Your task to perform on an android device: Go to Reddit.com Image 0: 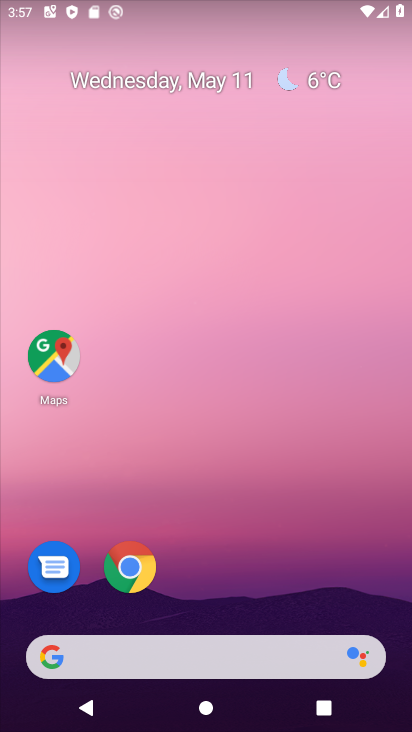
Step 0: drag from (256, 543) to (298, 135)
Your task to perform on an android device: Go to Reddit.com Image 1: 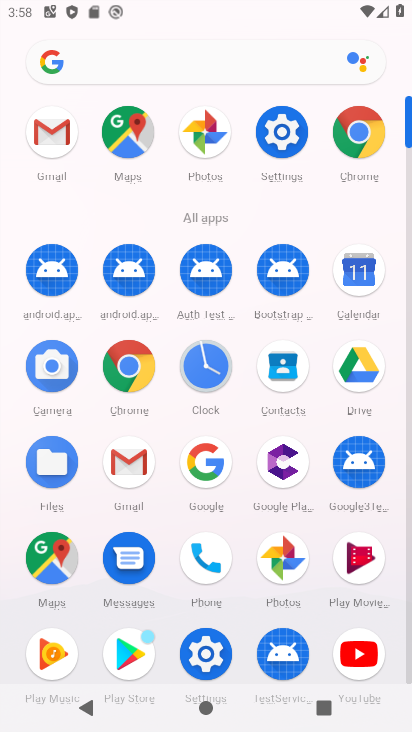
Step 1: click (348, 128)
Your task to perform on an android device: Go to Reddit.com Image 2: 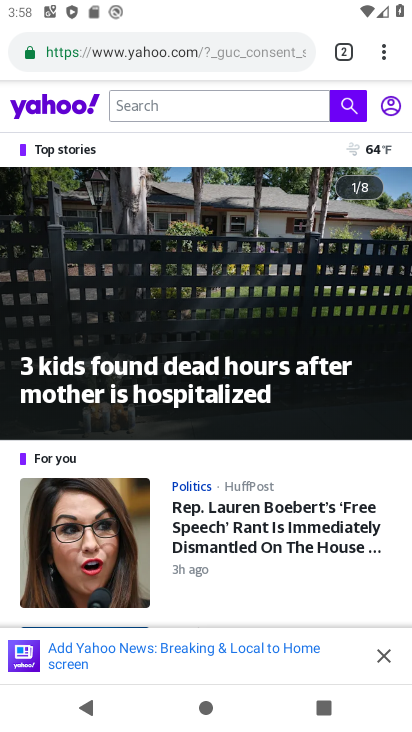
Step 2: click (370, 48)
Your task to perform on an android device: Go to Reddit.com Image 3: 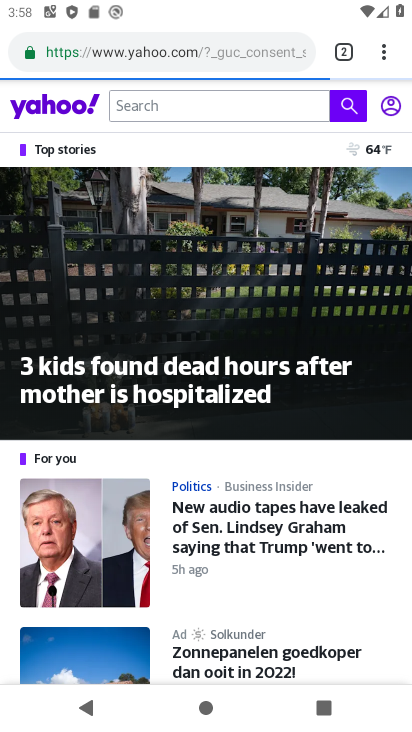
Step 3: click (379, 51)
Your task to perform on an android device: Go to Reddit.com Image 4: 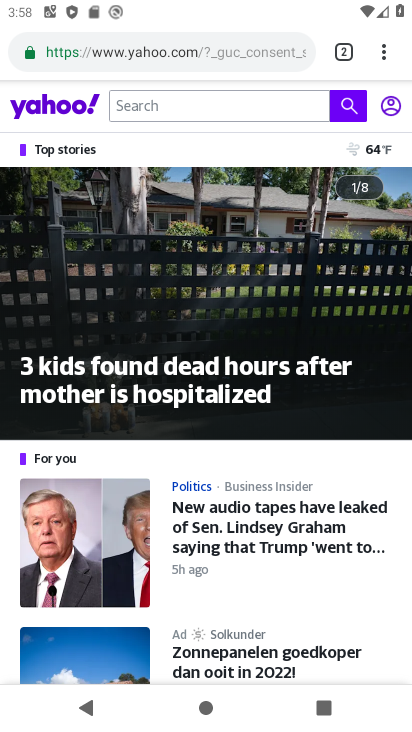
Step 4: click (372, 49)
Your task to perform on an android device: Go to Reddit.com Image 5: 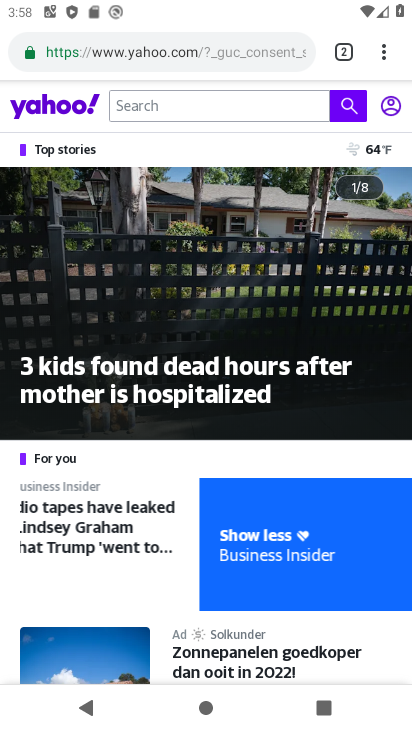
Step 5: click (371, 50)
Your task to perform on an android device: Go to Reddit.com Image 6: 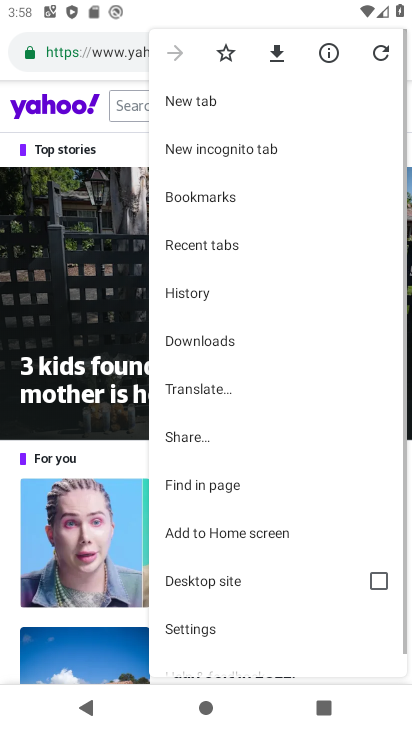
Step 6: click (221, 94)
Your task to perform on an android device: Go to Reddit.com Image 7: 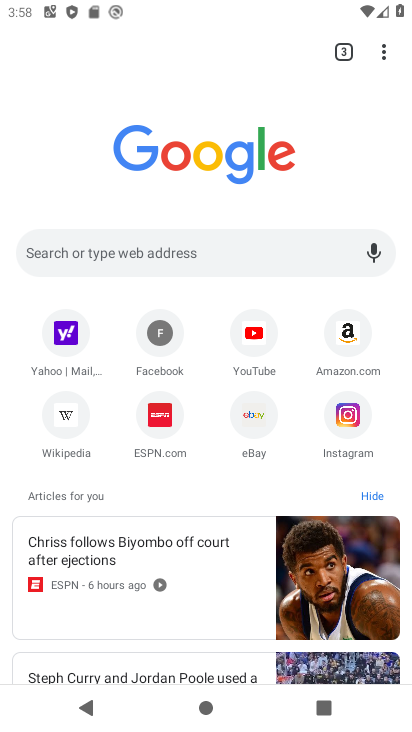
Step 7: click (123, 242)
Your task to perform on an android device: Go to Reddit.com Image 8: 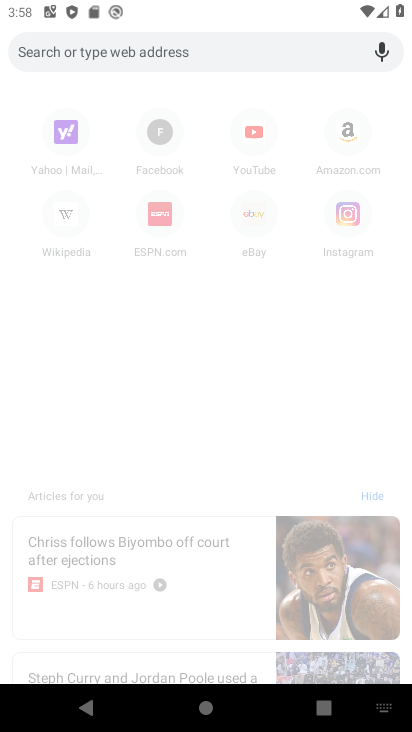
Step 8: click (189, 42)
Your task to perform on an android device: Go to Reddit.com Image 9: 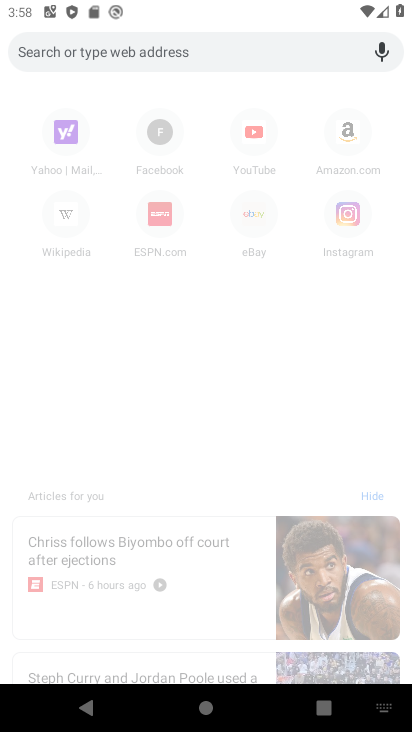
Step 9: type " Reddit.com"
Your task to perform on an android device: Go to Reddit.com Image 10: 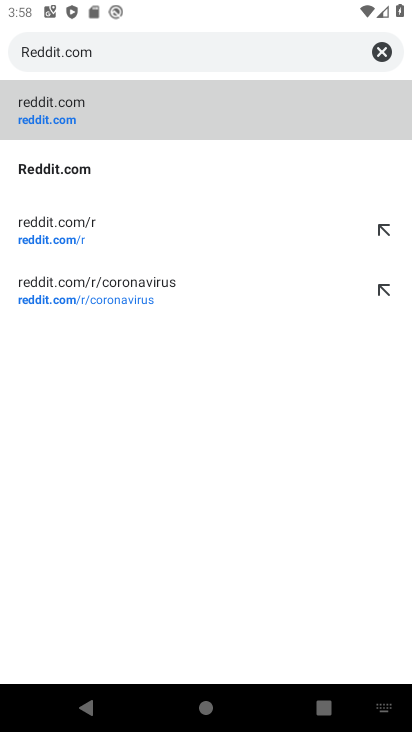
Step 10: click (95, 114)
Your task to perform on an android device: Go to Reddit.com Image 11: 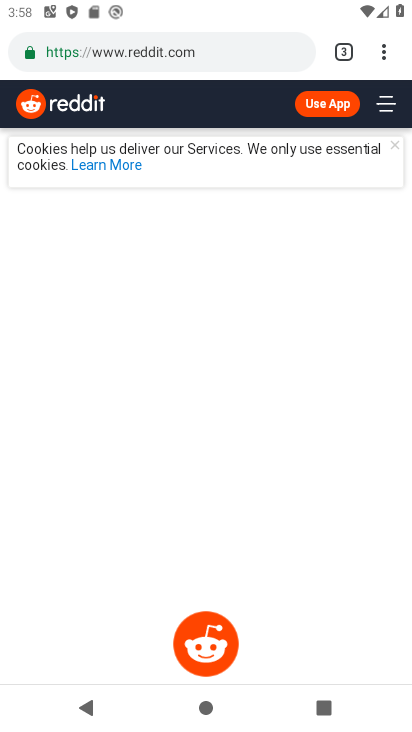
Step 11: task complete